Your task to perform on an android device: refresh tabs in the chrome app Image 0: 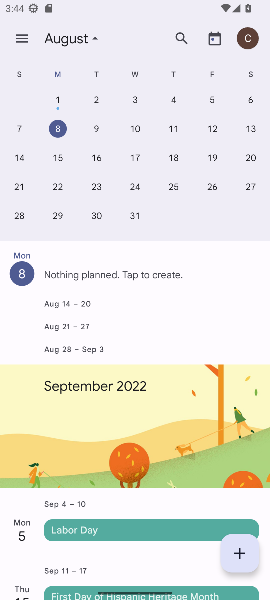
Step 0: press back button
Your task to perform on an android device: refresh tabs in the chrome app Image 1: 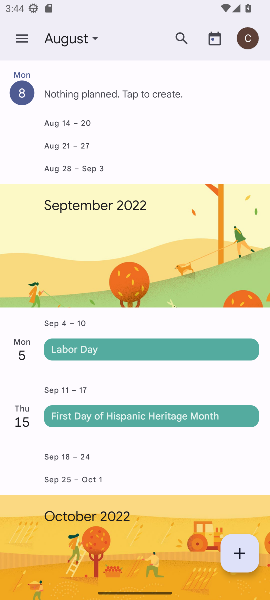
Step 1: press back button
Your task to perform on an android device: refresh tabs in the chrome app Image 2: 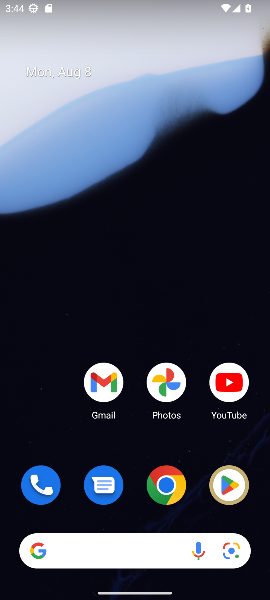
Step 2: drag from (152, 447) to (124, 46)
Your task to perform on an android device: refresh tabs in the chrome app Image 3: 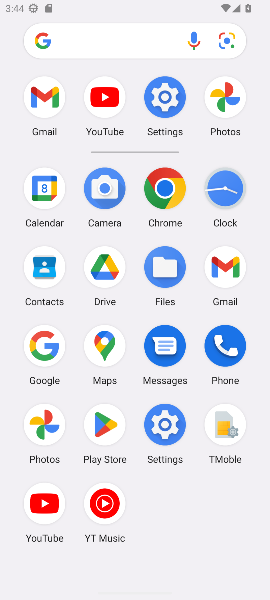
Step 3: drag from (149, 363) to (105, 12)
Your task to perform on an android device: refresh tabs in the chrome app Image 4: 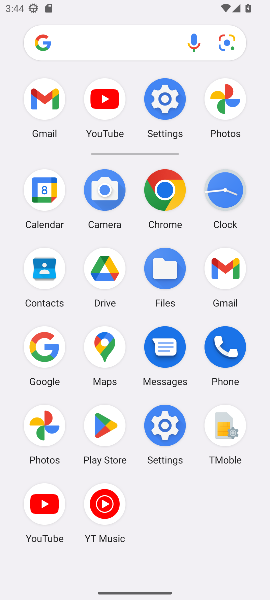
Step 4: click (165, 190)
Your task to perform on an android device: refresh tabs in the chrome app Image 5: 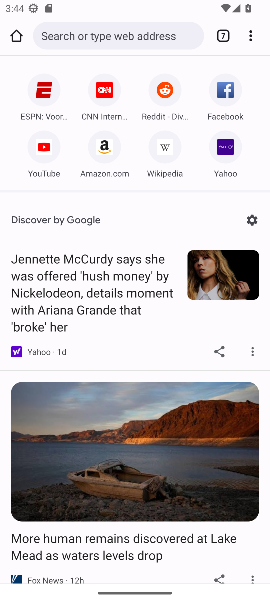
Step 5: click (247, 29)
Your task to perform on an android device: refresh tabs in the chrome app Image 6: 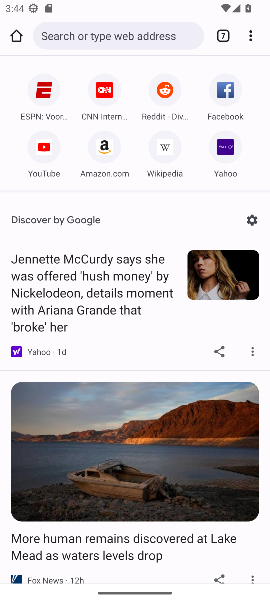
Step 6: task complete